Your task to perform on an android device: open sync settings in chrome Image 0: 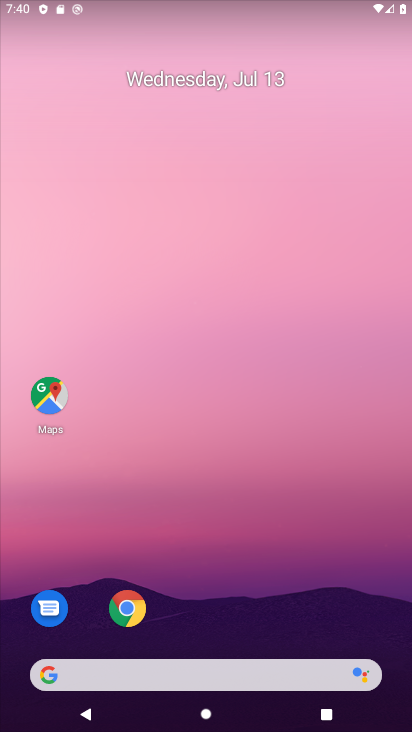
Step 0: drag from (184, 627) to (143, 72)
Your task to perform on an android device: open sync settings in chrome Image 1: 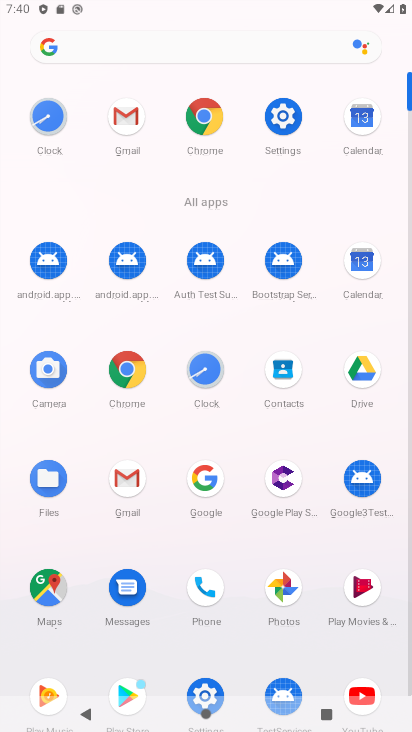
Step 1: click (213, 120)
Your task to perform on an android device: open sync settings in chrome Image 2: 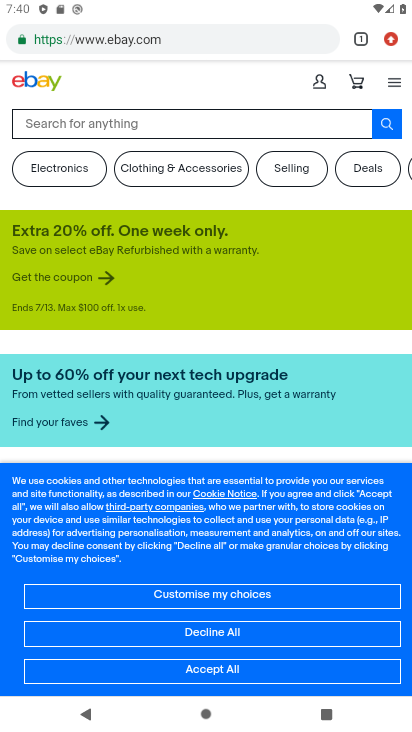
Step 2: drag from (389, 41) to (250, 524)
Your task to perform on an android device: open sync settings in chrome Image 3: 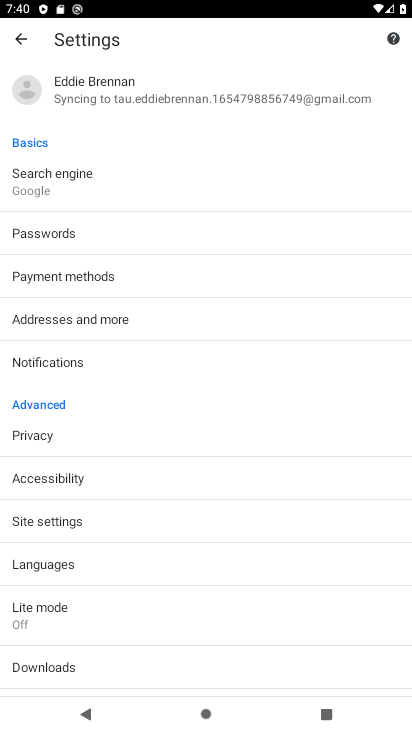
Step 3: click (50, 100)
Your task to perform on an android device: open sync settings in chrome Image 4: 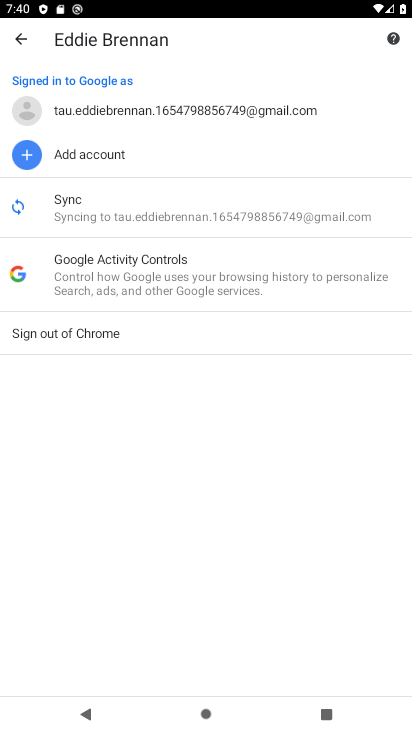
Step 4: click (77, 216)
Your task to perform on an android device: open sync settings in chrome Image 5: 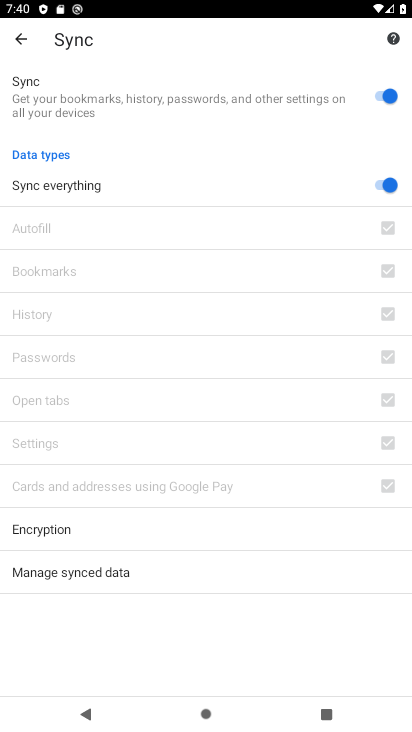
Step 5: task complete